Your task to perform on an android device: Is it going to rain today? Image 0: 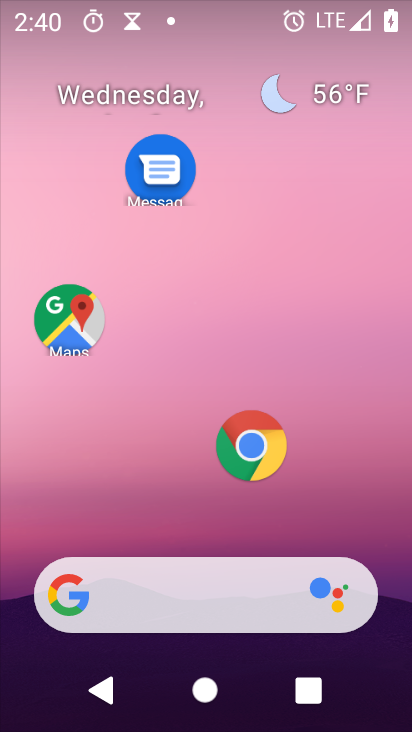
Step 0: drag from (187, 377) to (236, 101)
Your task to perform on an android device: Is it going to rain today? Image 1: 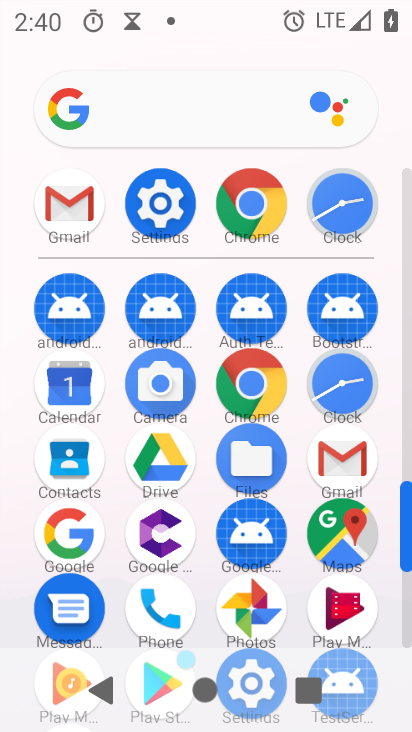
Step 1: drag from (211, 265) to (227, 89)
Your task to perform on an android device: Is it going to rain today? Image 2: 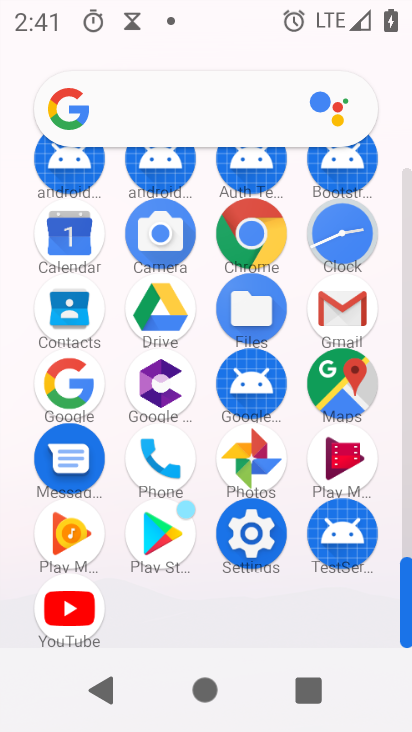
Step 2: click (76, 390)
Your task to perform on an android device: Is it going to rain today? Image 3: 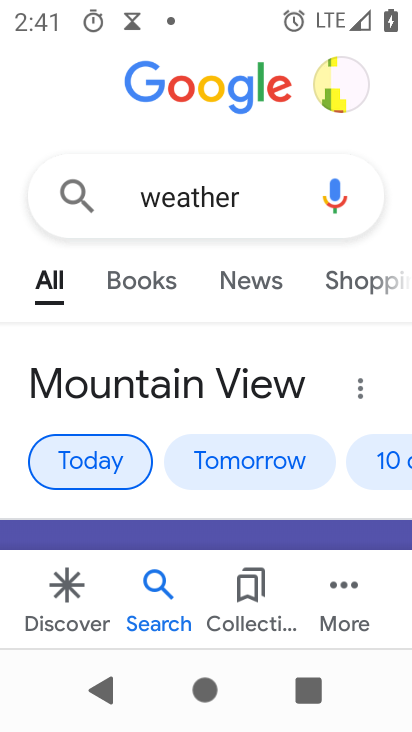
Step 3: click (124, 591)
Your task to perform on an android device: Is it going to rain today? Image 4: 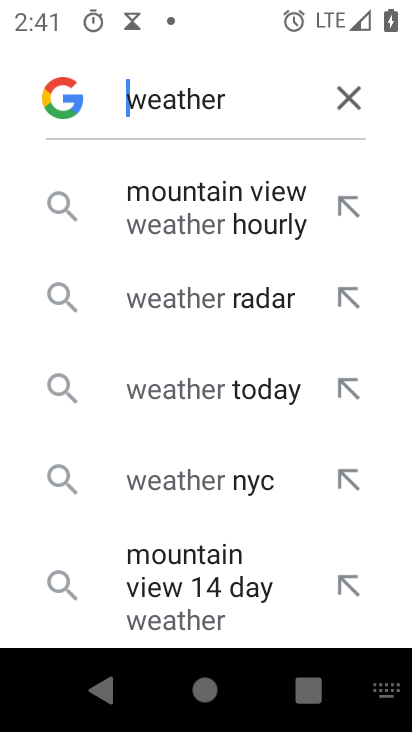
Step 4: click (145, 524)
Your task to perform on an android device: Is it going to rain today? Image 5: 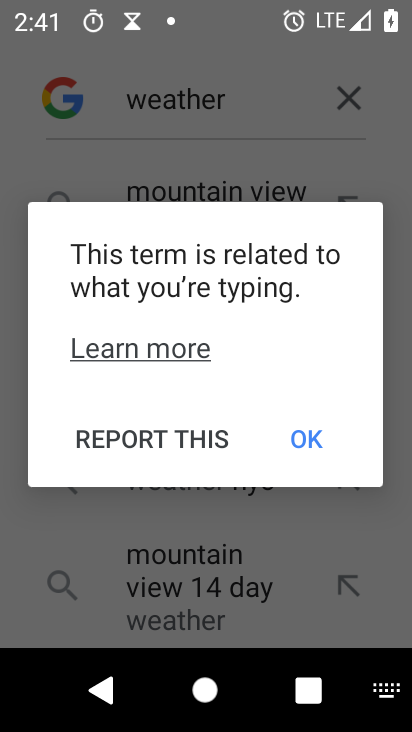
Step 5: click (303, 446)
Your task to perform on an android device: Is it going to rain today? Image 6: 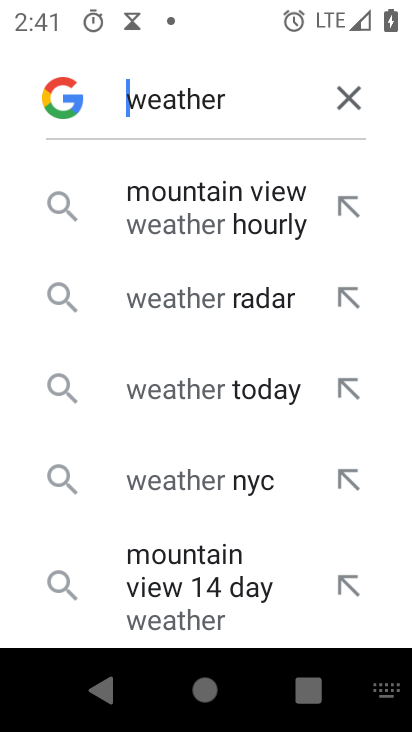
Step 6: press back button
Your task to perform on an android device: Is it going to rain today? Image 7: 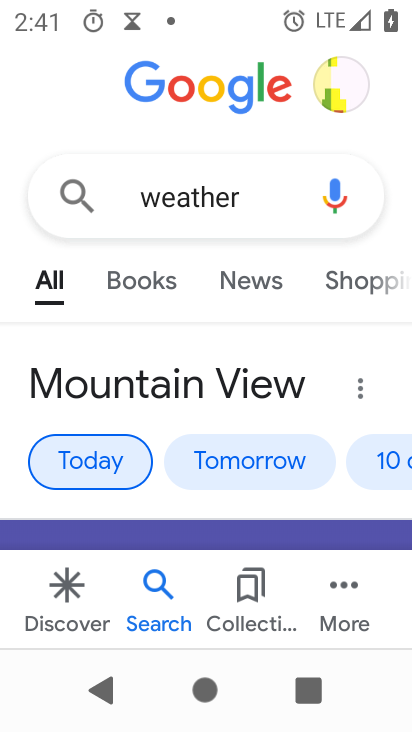
Step 7: click (39, 611)
Your task to perform on an android device: Is it going to rain today? Image 8: 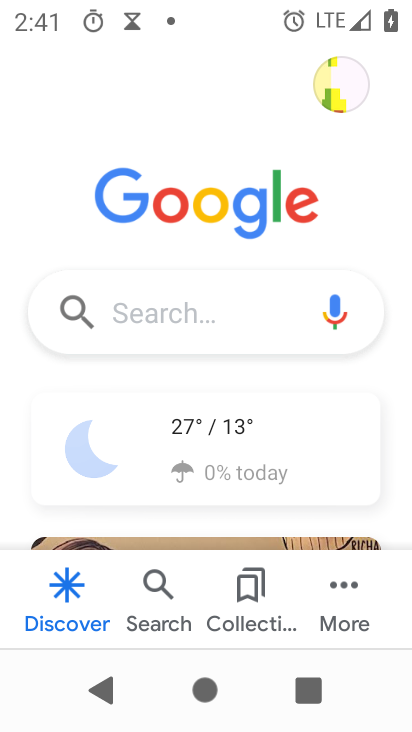
Step 8: click (193, 456)
Your task to perform on an android device: Is it going to rain today? Image 9: 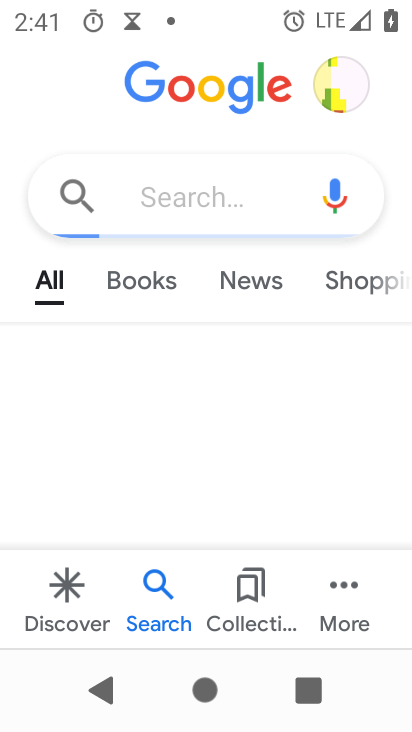
Step 9: click (194, 456)
Your task to perform on an android device: Is it going to rain today? Image 10: 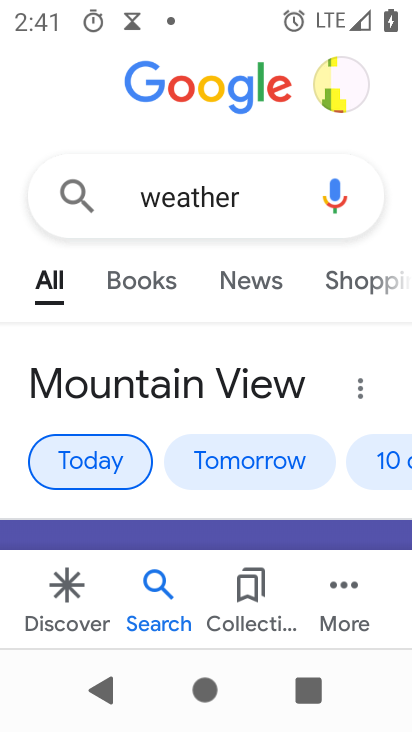
Step 10: click (140, 515)
Your task to perform on an android device: Is it going to rain today? Image 11: 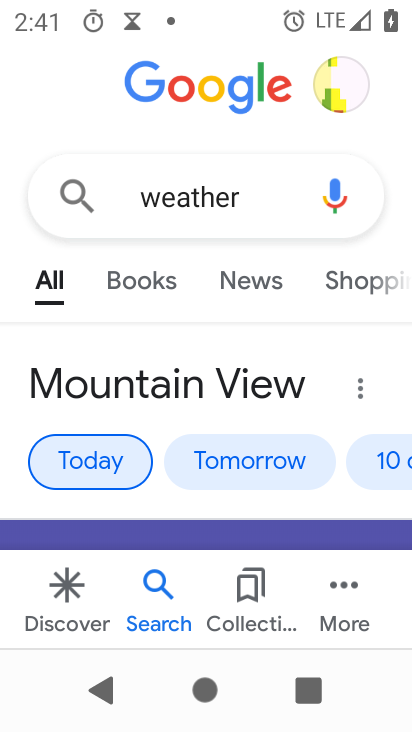
Step 11: drag from (96, 514) to (155, 209)
Your task to perform on an android device: Is it going to rain today? Image 12: 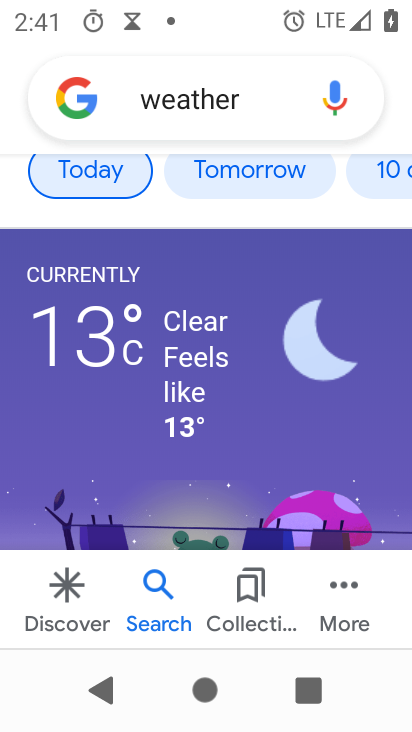
Step 12: drag from (163, 483) to (190, 266)
Your task to perform on an android device: Is it going to rain today? Image 13: 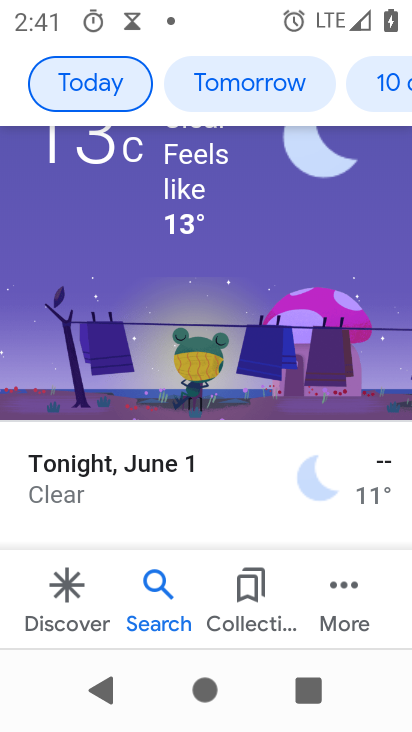
Step 13: click (74, 605)
Your task to perform on an android device: Is it going to rain today? Image 14: 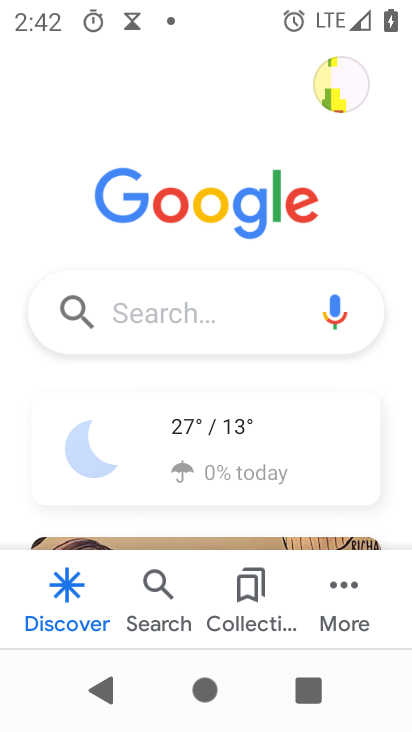
Step 14: click (203, 447)
Your task to perform on an android device: Is it going to rain today? Image 15: 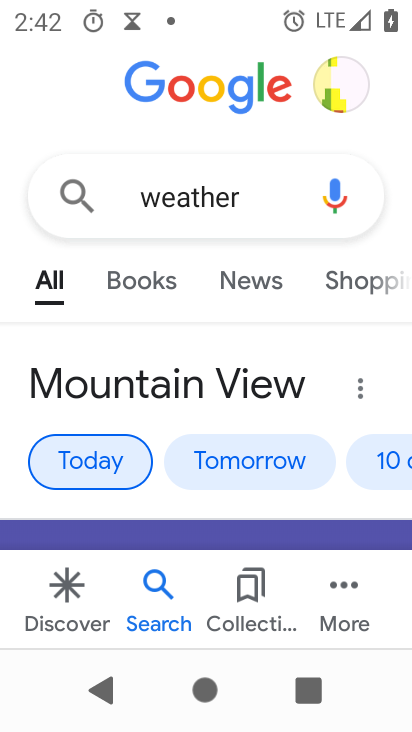
Step 15: task complete